Your task to perform on an android device: turn off location Image 0: 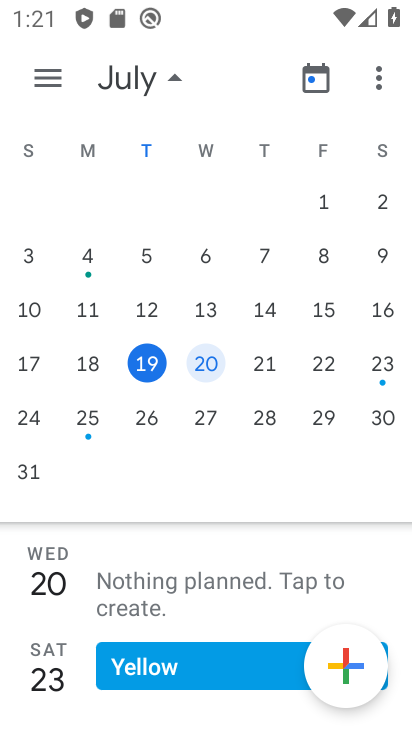
Step 0: press home button
Your task to perform on an android device: turn off location Image 1: 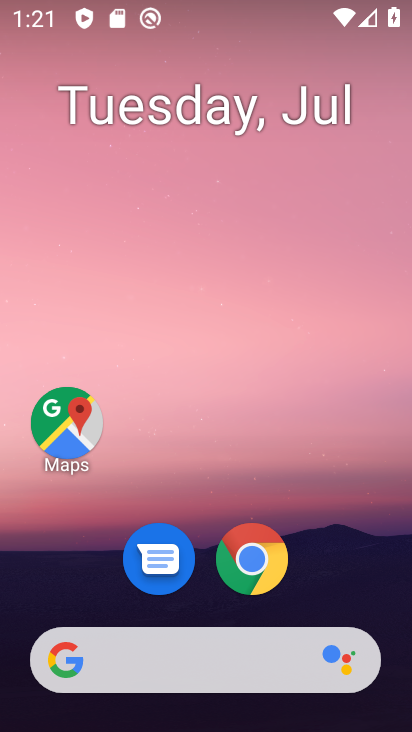
Step 1: drag from (385, 547) to (366, 203)
Your task to perform on an android device: turn off location Image 2: 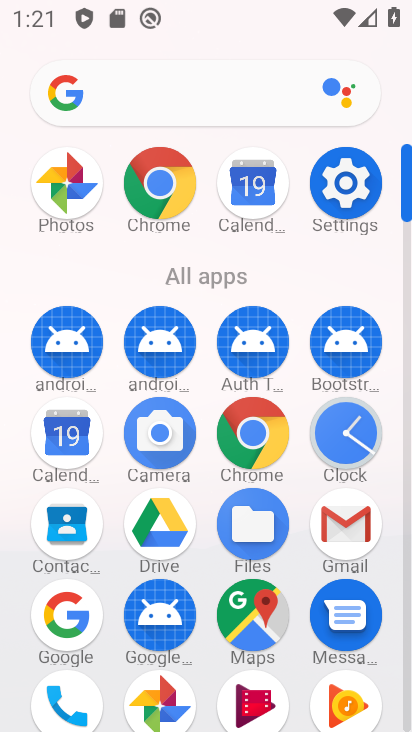
Step 2: click (354, 194)
Your task to perform on an android device: turn off location Image 3: 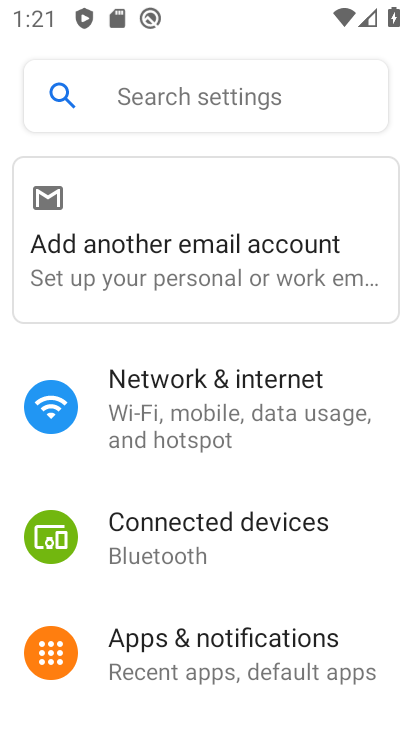
Step 3: drag from (369, 366) to (371, 302)
Your task to perform on an android device: turn off location Image 4: 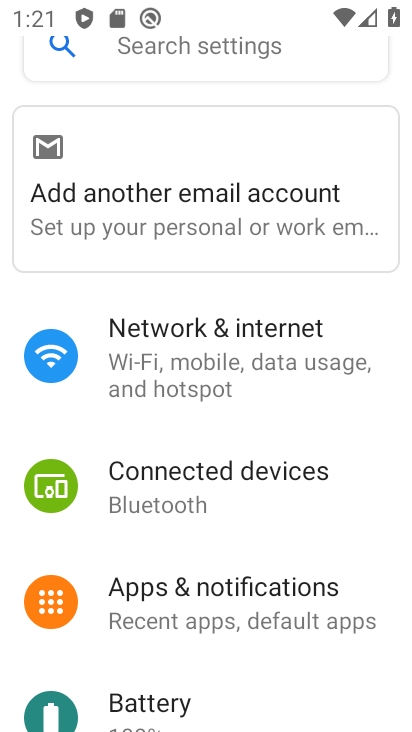
Step 4: drag from (370, 414) to (377, 343)
Your task to perform on an android device: turn off location Image 5: 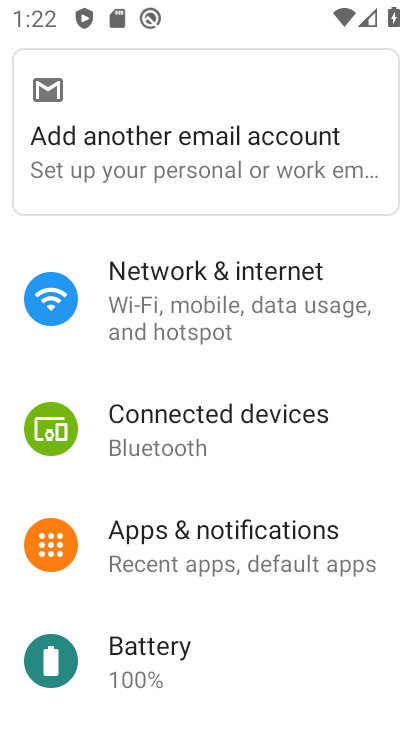
Step 5: drag from (372, 435) to (365, 340)
Your task to perform on an android device: turn off location Image 6: 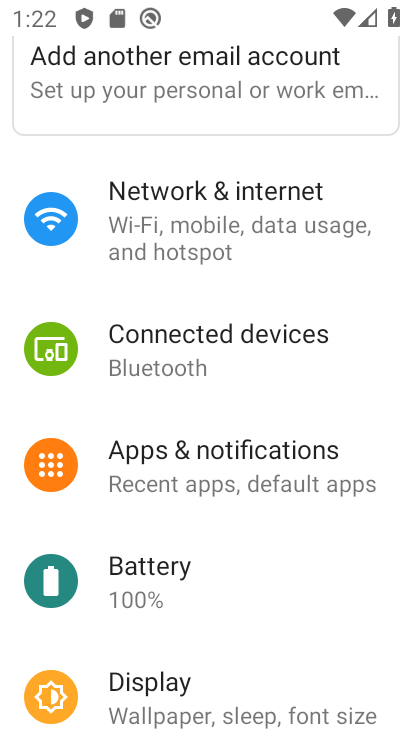
Step 6: drag from (364, 428) to (357, 354)
Your task to perform on an android device: turn off location Image 7: 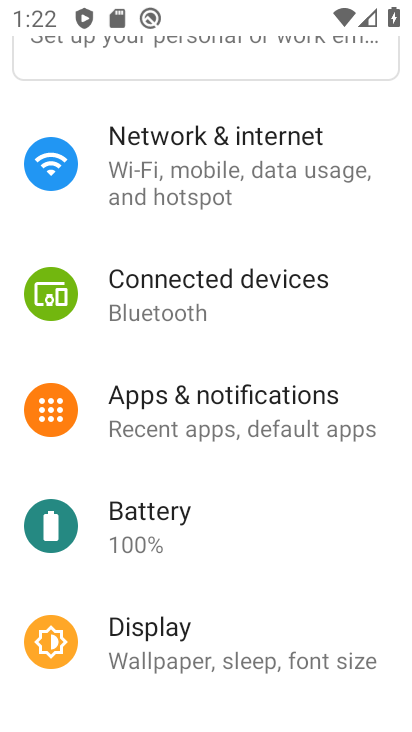
Step 7: drag from (343, 486) to (343, 361)
Your task to perform on an android device: turn off location Image 8: 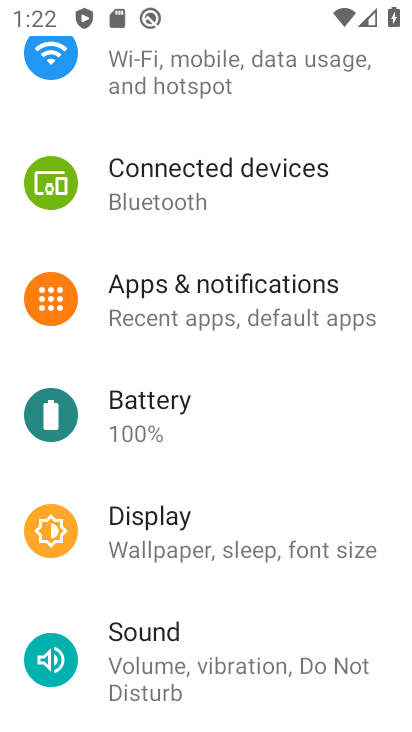
Step 8: drag from (350, 470) to (350, 380)
Your task to perform on an android device: turn off location Image 9: 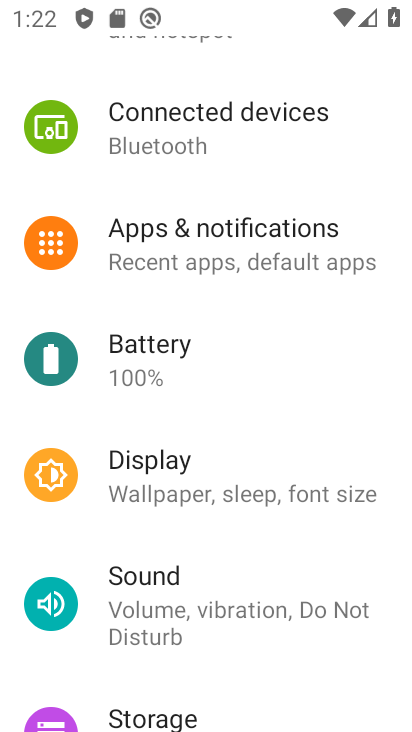
Step 9: drag from (358, 532) to (344, 424)
Your task to perform on an android device: turn off location Image 10: 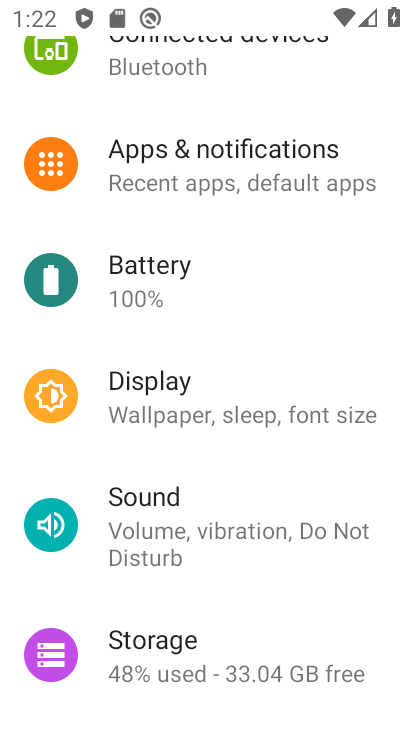
Step 10: drag from (338, 540) to (330, 465)
Your task to perform on an android device: turn off location Image 11: 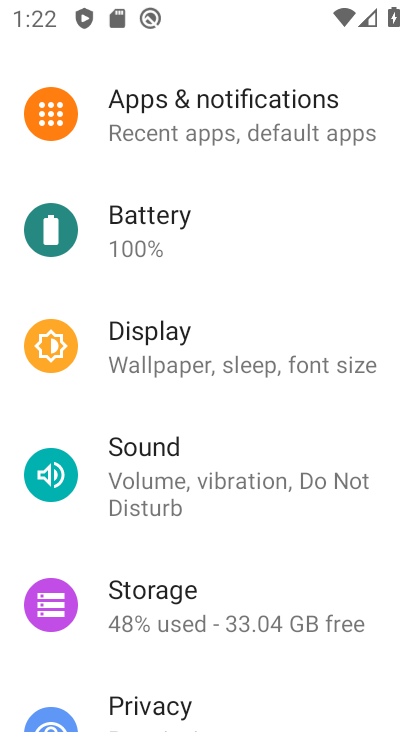
Step 11: drag from (318, 561) to (312, 480)
Your task to perform on an android device: turn off location Image 12: 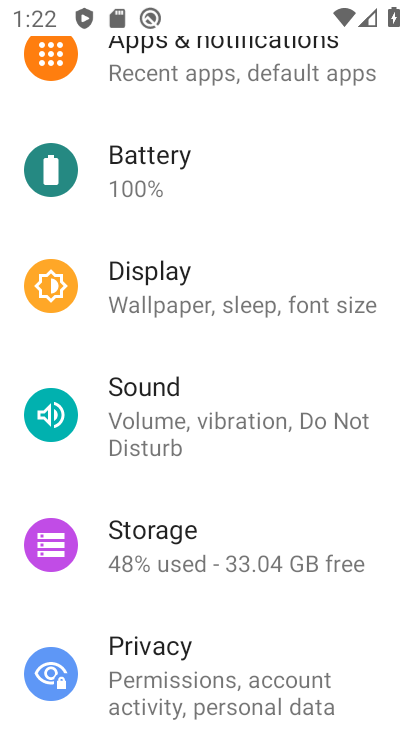
Step 12: drag from (309, 573) to (293, 499)
Your task to perform on an android device: turn off location Image 13: 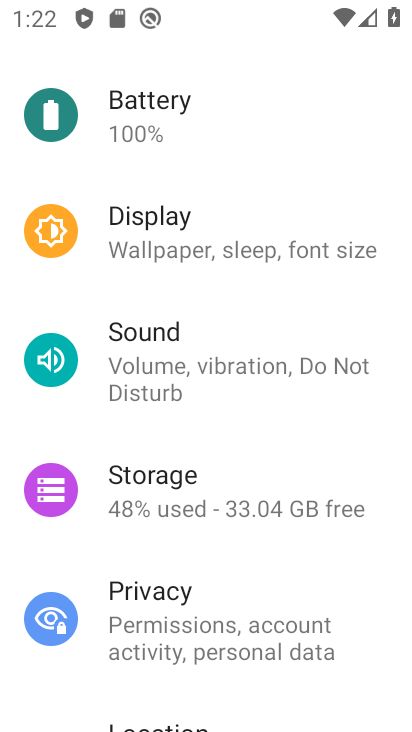
Step 13: drag from (288, 568) to (279, 458)
Your task to perform on an android device: turn off location Image 14: 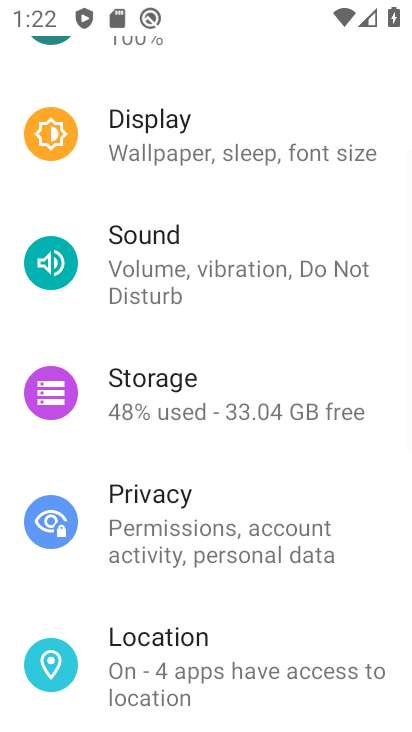
Step 14: drag from (288, 570) to (292, 444)
Your task to perform on an android device: turn off location Image 15: 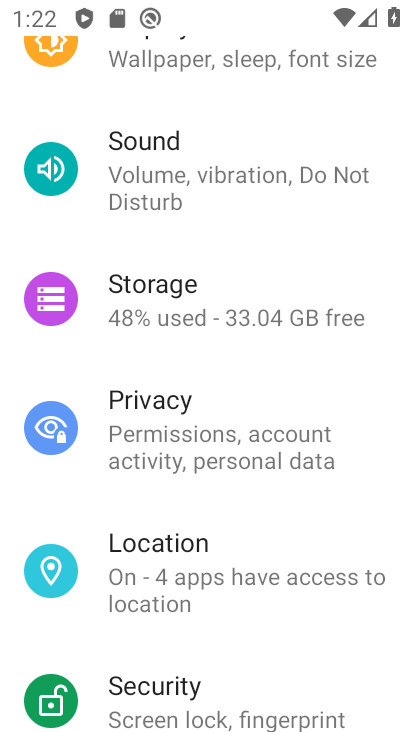
Step 15: click (309, 565)
Your task to perform on an android device: turn off location Image 16: 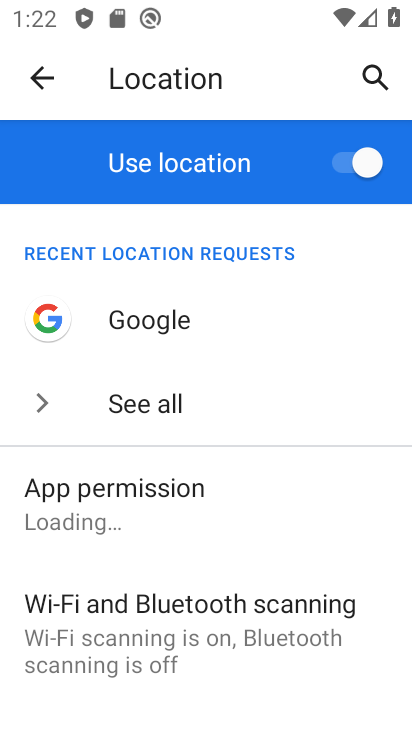
Step 16: click (366, 156)
Your task to perform on an android device: turn off location Image 17: 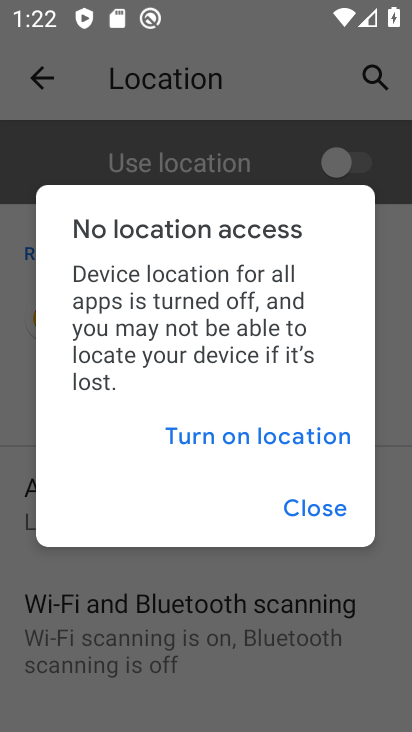
Step 17: task complete